Your task to perform on an android device: see tabs open on other devices in the chrome app Image 0: 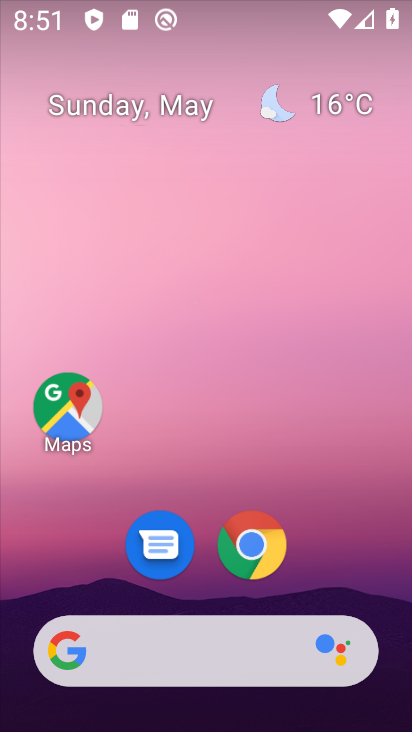
Step 0: click (259, 539)
Your task to perform on an android device: see tabs open on other devices in the chrome app Image 1: 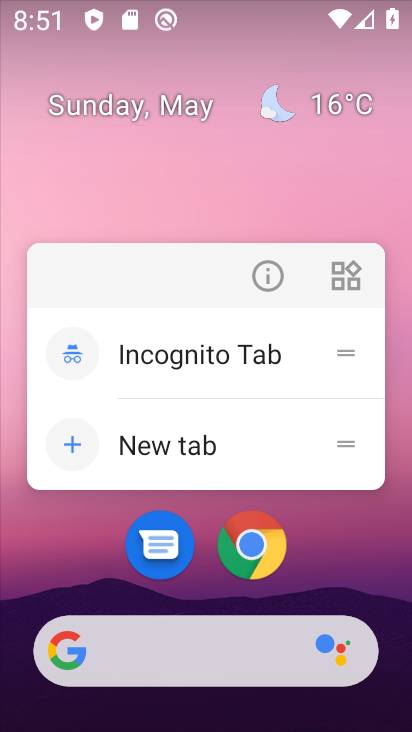
Step 1: click (244, 541)
Your task to perform on an android device: see tabs open on other devices in the chrome app Image 2: 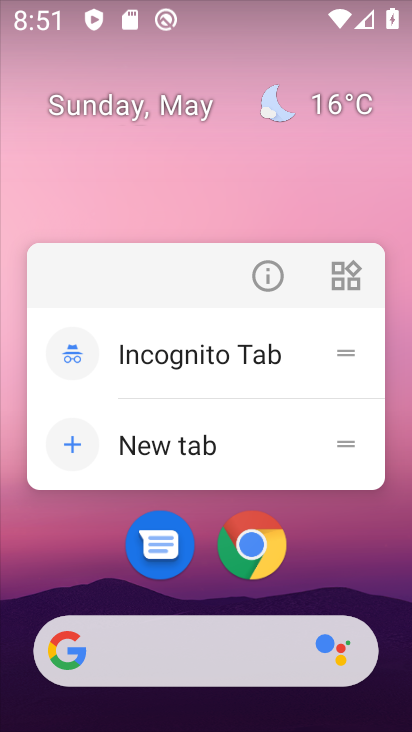
Step 2: click (244, 541)
Your task to perform on an android device: see tabs open on other devices in the chrome app Image 3: 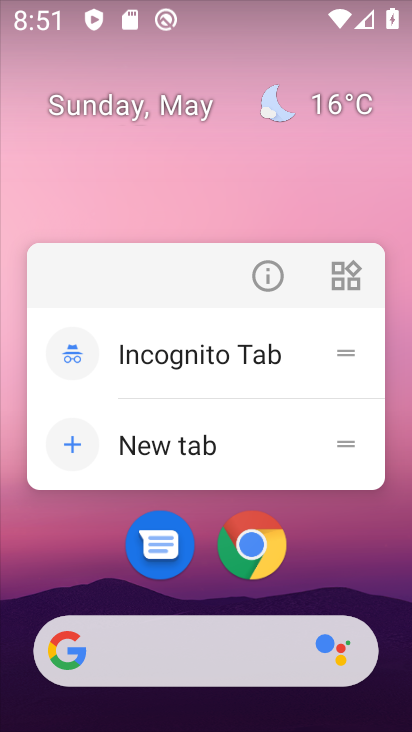
Step 3: click (244, 541)
Your task to perform on an android device: see tabs open on other devices in the chrome app Image 4: 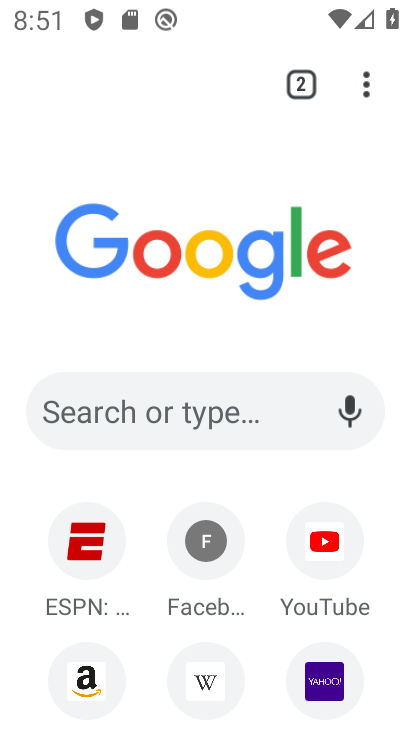
Step 4: drag from (362, 81) to (150, 393)
Your task to perform on an android device: see tabs open on other devices in the chrome app Image 5: 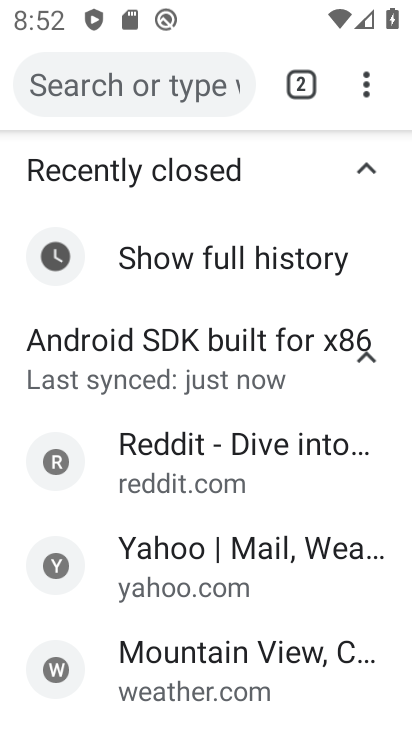
Step 5: click (366, 353)
Your task to perform on an android device: see tabs open on other devices in the chrome app Image 6: 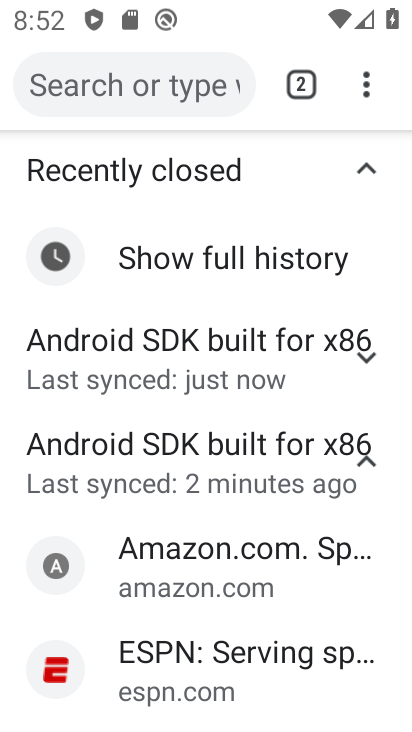
Step 6: click (284, 470)
Your task to perform on an android device: see tabs open on other devices in the chrome app Image 7: 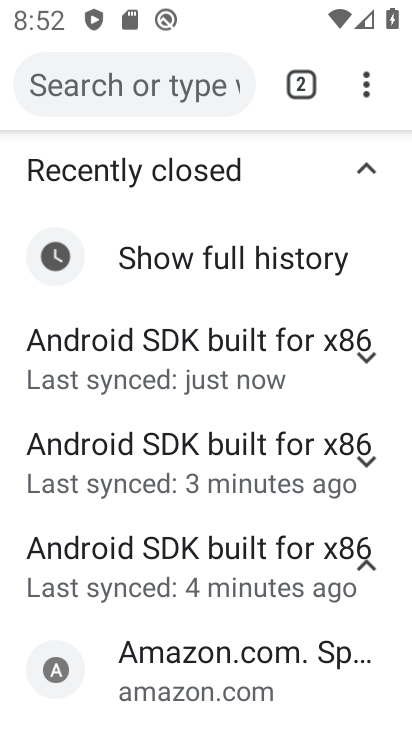
Step 7: task complete